Your task to perform on an android device: star an email in the gmail app Image 0: 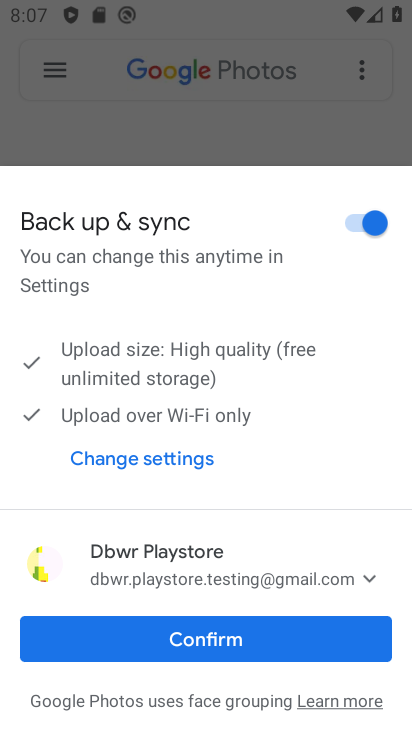
Step 0: press home button
Your task to perform on an android device: star an email in the gmail app Image 1: 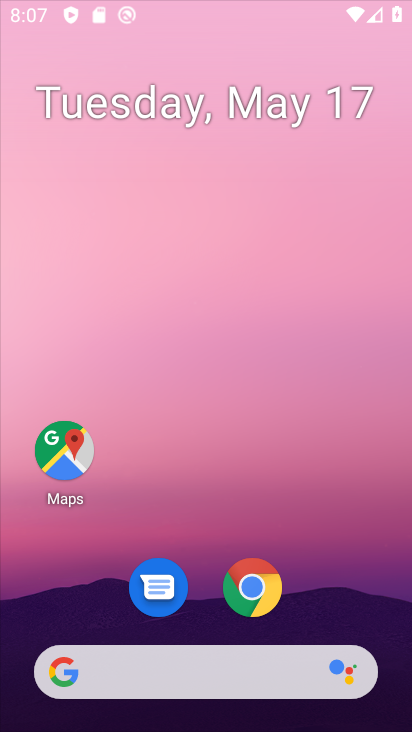
Step 1: drag from (180, 641) to (300, 229)
Your task to perform on an android device: star an email in the gmail app Image 2: 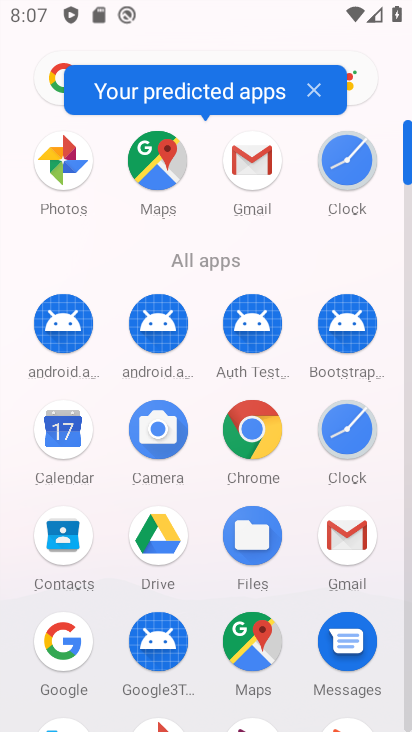
Step 2: click (340, 544)
Your task to perform on an android device: star an email in the gmail app Image 3: 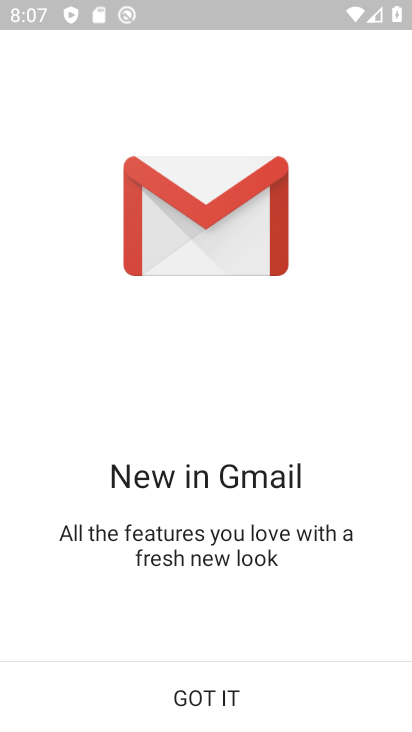
Step 3: click (186, 697)
Your task to perform on an android device: star an email in the gmail app Image 4: 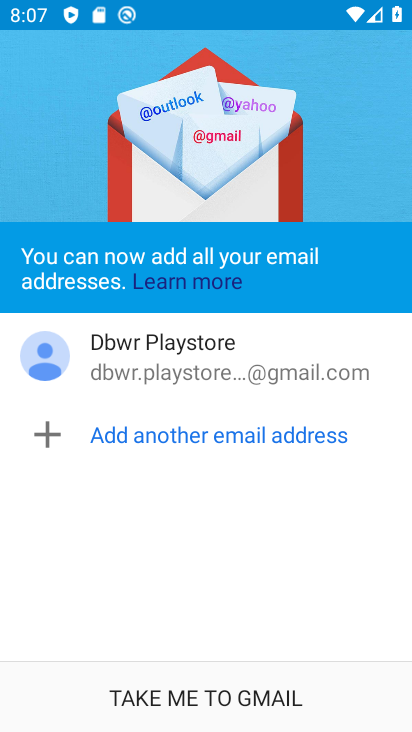
Step 4: click (199, 700)
Your task to perform on an android device: star an email in the gmail app Image 5: 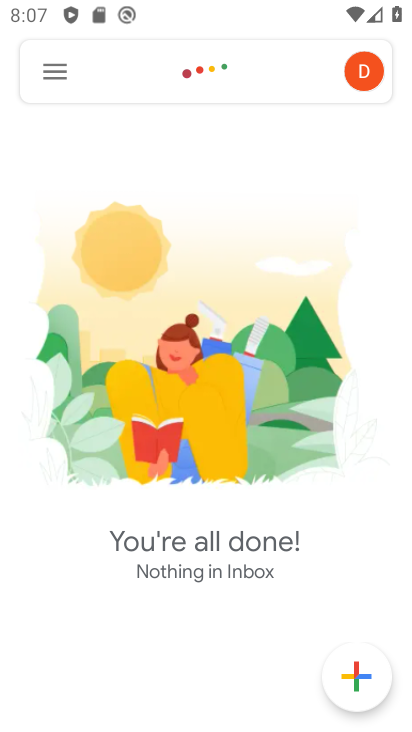
Step 5: click (60, 57)
Your task to perform on an android device: star an email in the gmail app Image 6: 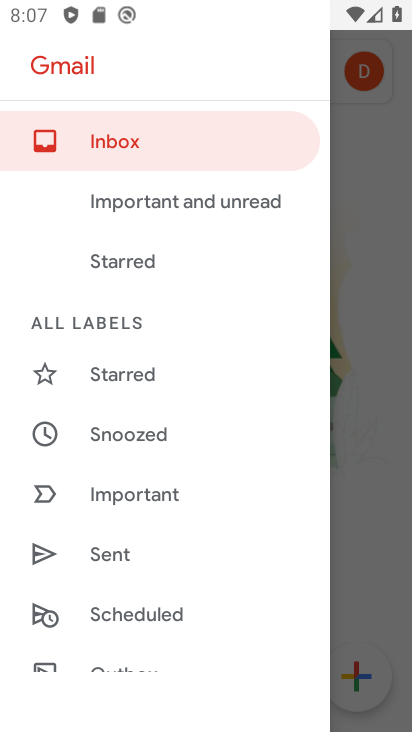
Step 6: drag from (139, 633) to (205, 169)
Your task to perform on an android device: star an email in the gmail app Image 7: 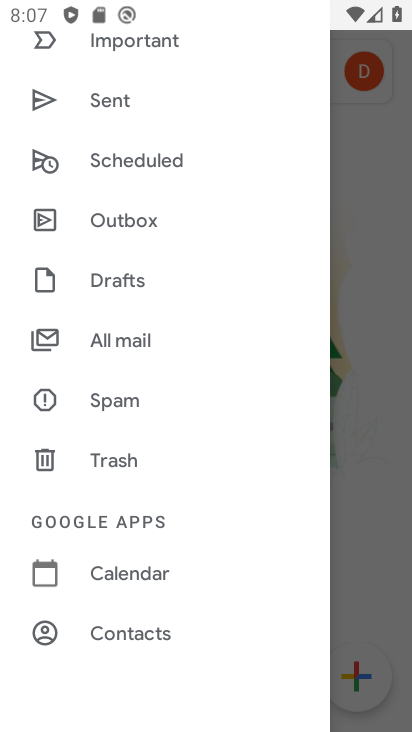
Step 7: click (128, 335)
Your task to perform on an android device: star an email in the gmail app Image 8: 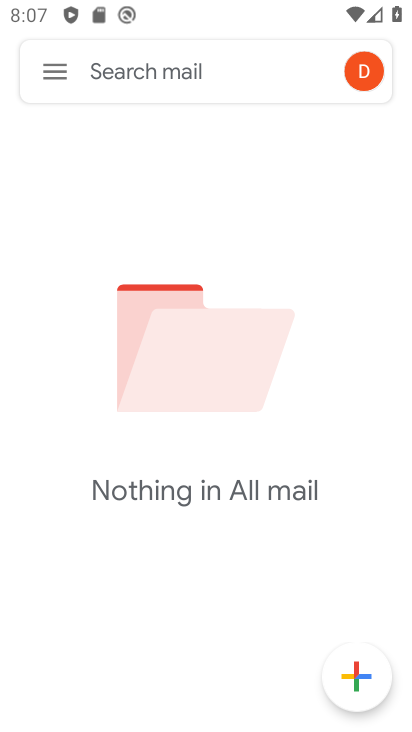
Step 8: task complete